Your task to perform on an android device: check android version Image 0: 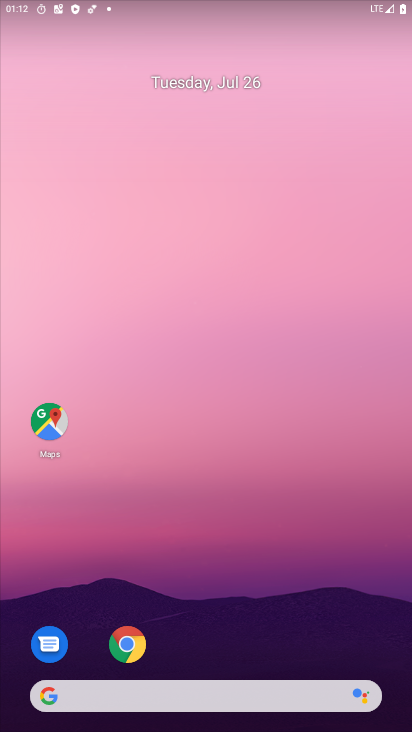
Step 0: drag from (224, 676) to (240, 0)
Your task to perform on an android device: check android version Image 1: 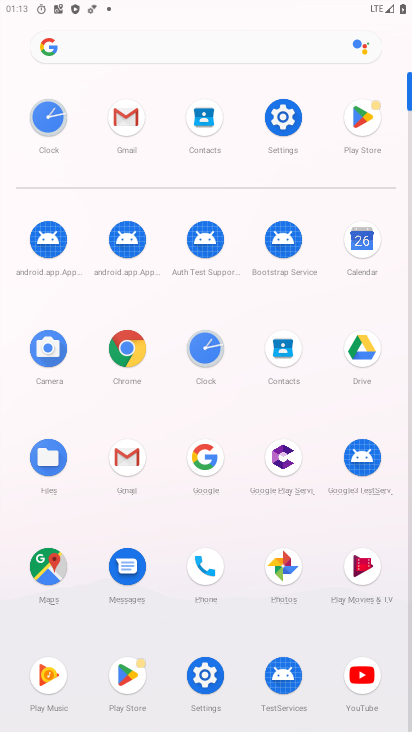
Step 1: click (276, 121)
Your task to perform on an android device: check android version Image 2: 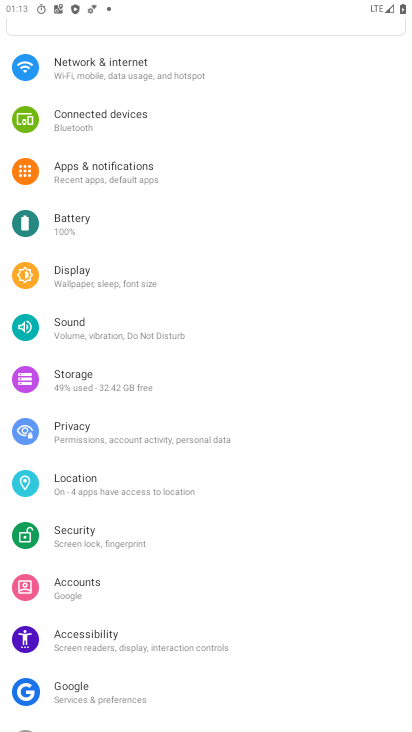
Step 2: drag from (231, 662) to (213, 256)
Your task to perform on an android device: check android version Image 3: 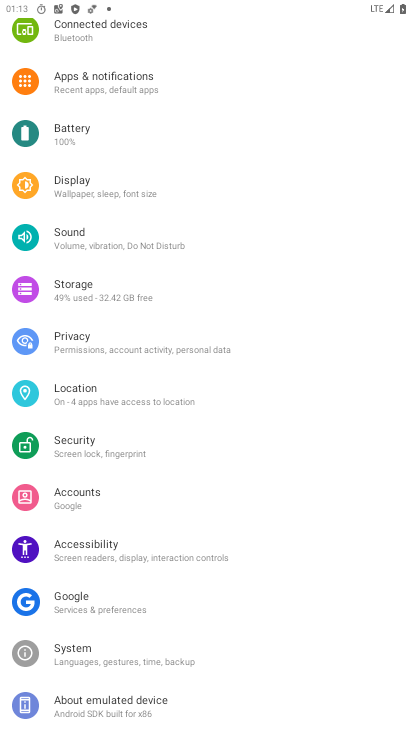
Step 3: click (104, 710)
Your task to perform on an android device: check android version Image 4: 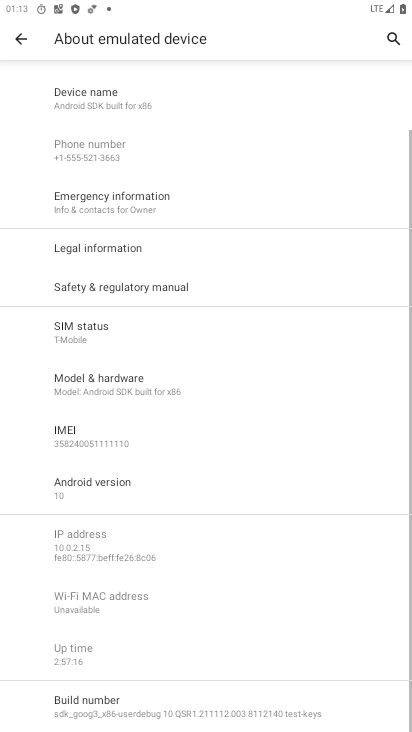
Step 4: drag from (209, 569) to (212, 218)
Your task to perform on an android device: check android version Image 5: 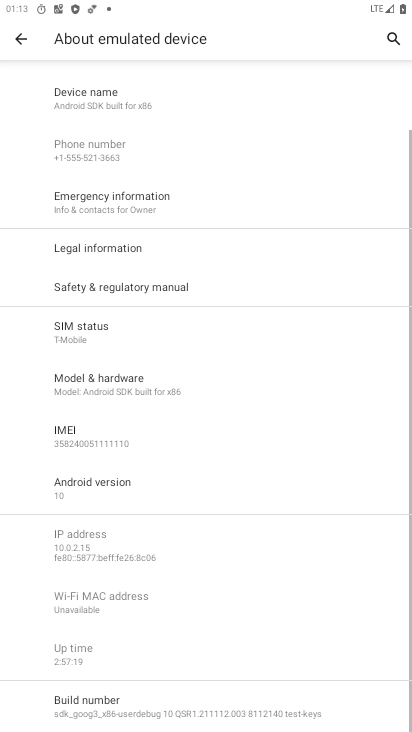
Step 5: click (81, 482)
Your task to perform on an android device: check android version Image 6: 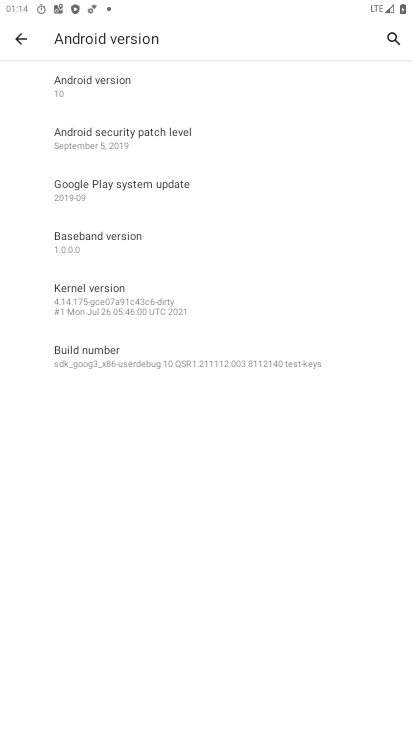
Step 6: task complete